Your task to perform on an android device: open a new tab in the chrome app Image 0: 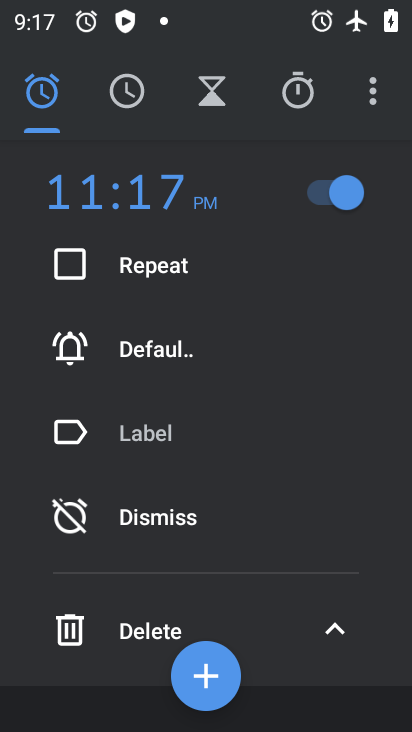
Step 0: press back button
Your task to perform on an android device: open a new tab in the chrome app Image 1: 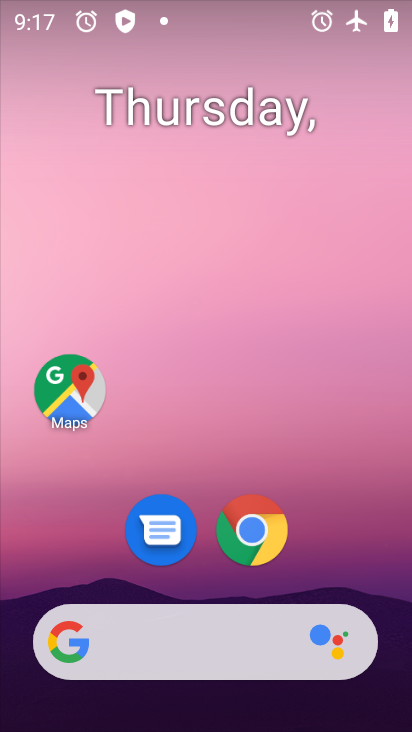
Step 1: drag from (312, 466) to (215, 26)
Your task to perform on an android device: open a new tab in the chrome app Image 2: 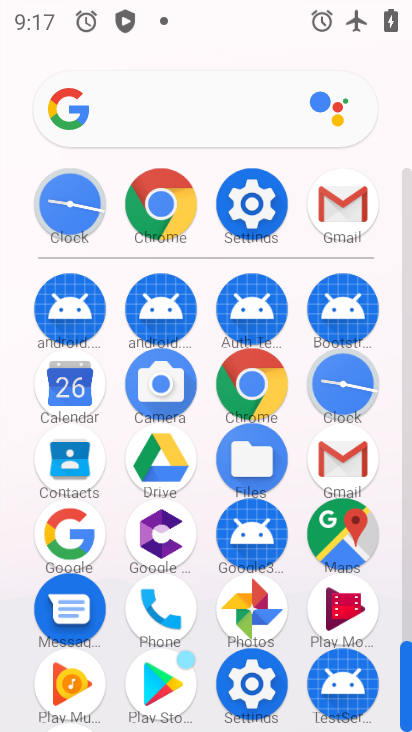
Step 2: drag from (16, 542) to (15, 235)
Your task to perform on an android device: open a new tab in the chrome app Image 3: 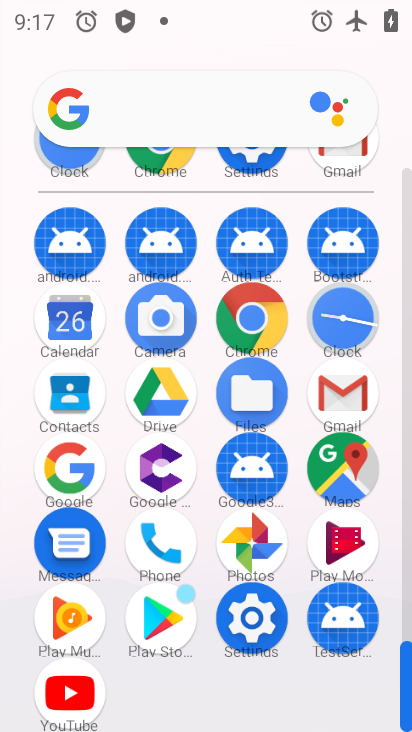
Step 3: click (252, 314)
Your task to perform on an android device: open a new tab in the chrome app Image 4: 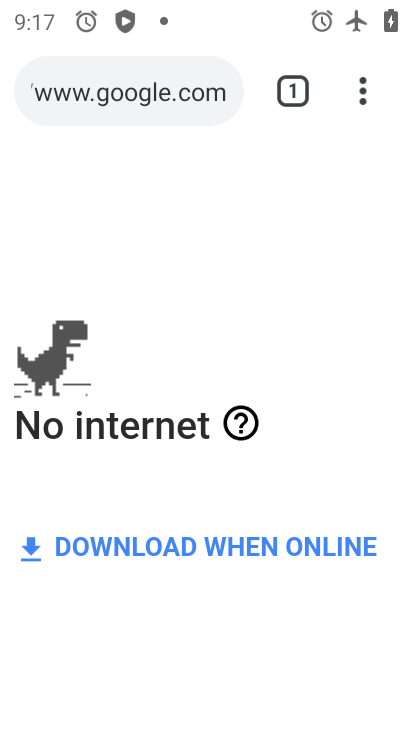
Step 4: task complete